Your task to perform on an android device: check storage Image 0: 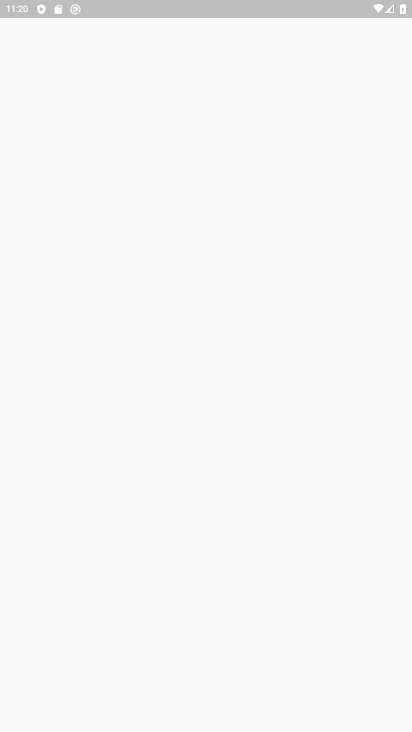
Step 0: press back button
Your task to perform on an android device: check storage Image 1: 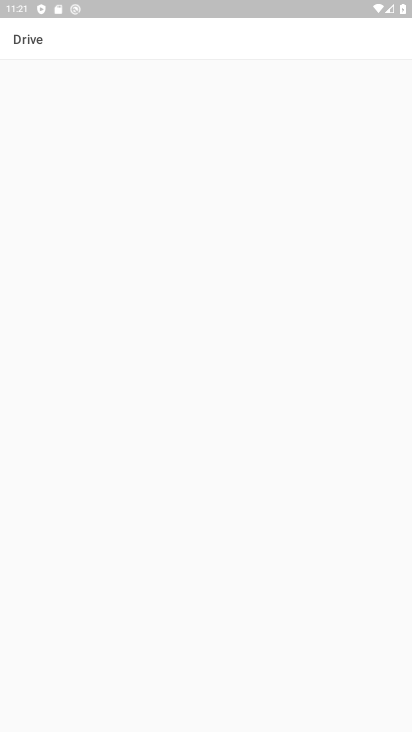
Step 1: press back button
Your task to perform on an android device: check storage Image 2: 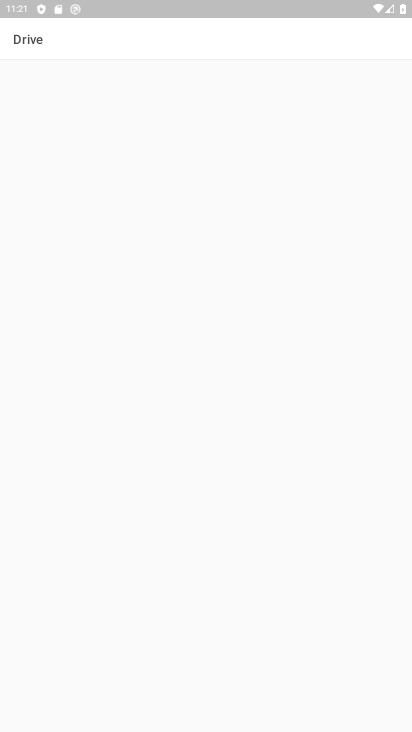
Step 2: press home button
Your task to perform on an android device: check storage Image 3: 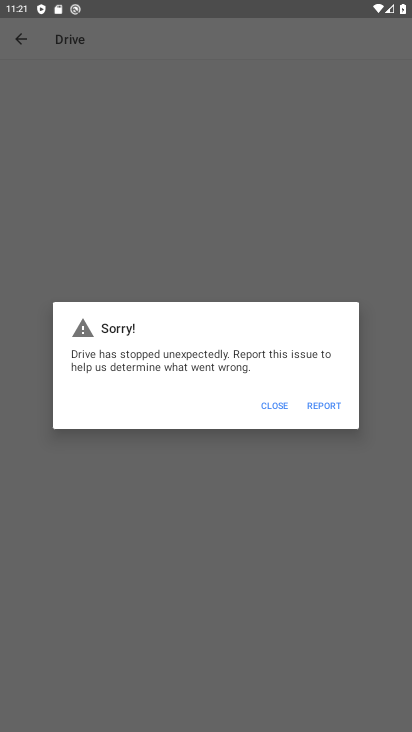
Step 3: press back button
Your task to perform on an android device: check storage Image 4: 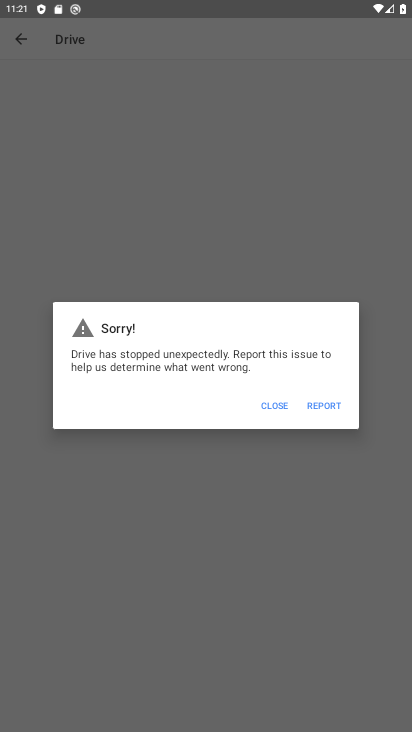
Step 4: press home button
Your task to perform on an android device: check storage Image 5: 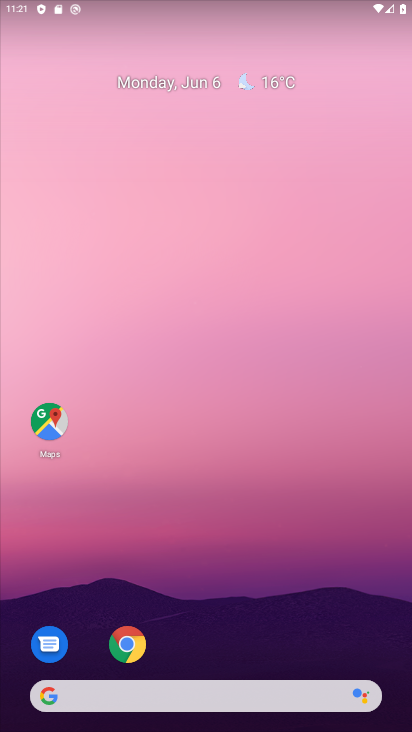
Step 5: press back button
Your task to perform on an android device: check storage Image 6: 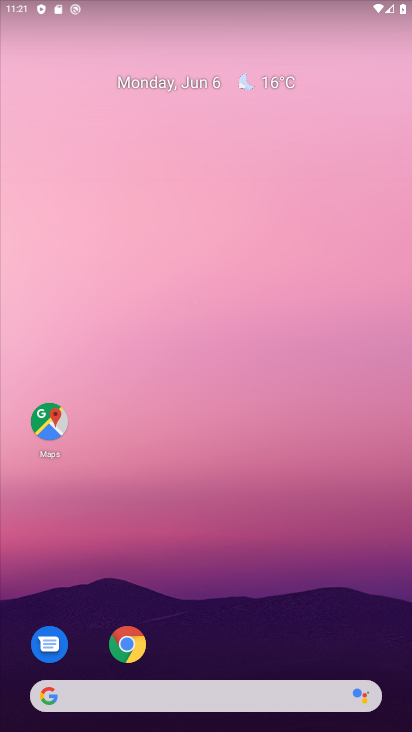
Step 6: drag from (299, 560) to (206, 3)
Your task to perform on an android device: check storage Image 7: 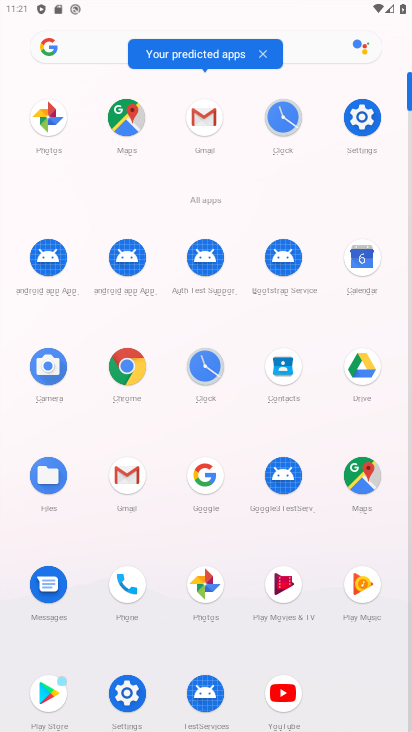
Step 7: click (129, 694)
Your task to perform on an android device: check storage Image 8: 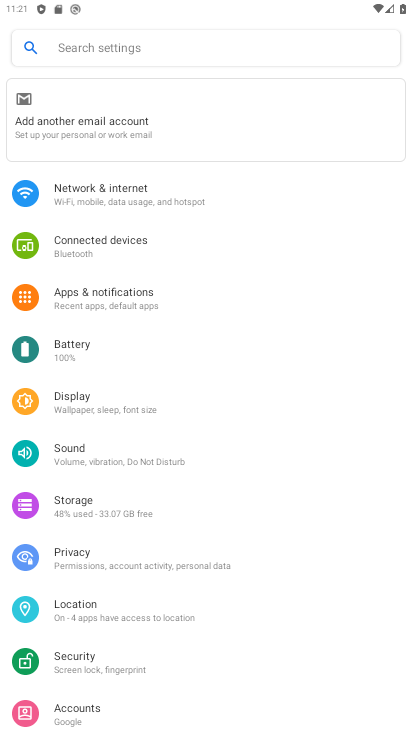
Step 8: drag from (232, 562) to (218, 231)
Your task to perform on an android device: check storage Image 9: 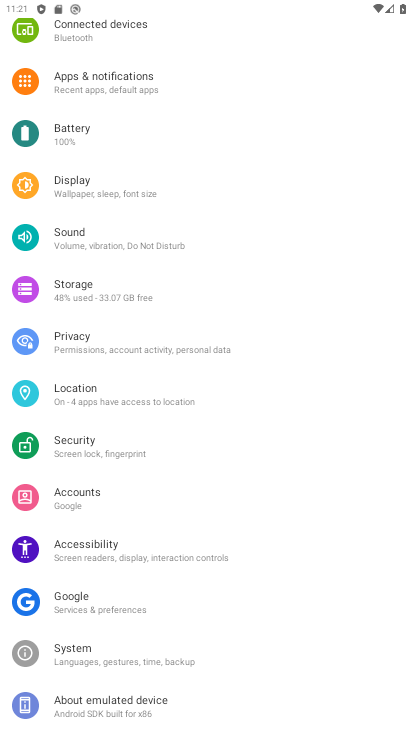
Step 9: drag from (244, 561) to (243, 245)
Your task to perform on an android device: check storage Image 10: 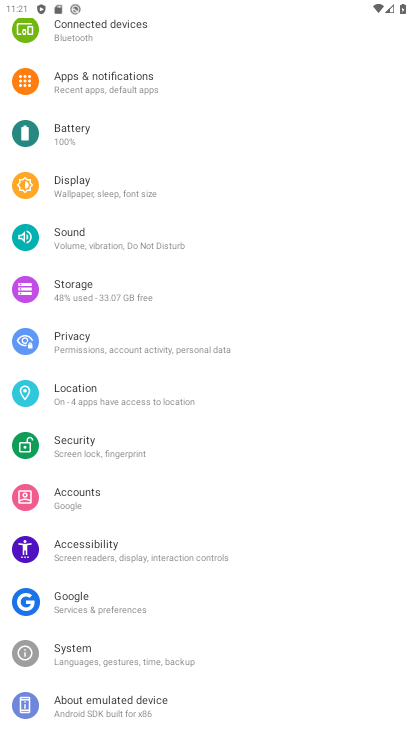
Step 10: click (96, 287)
Your task to perform on an android device: check storage Image 11: 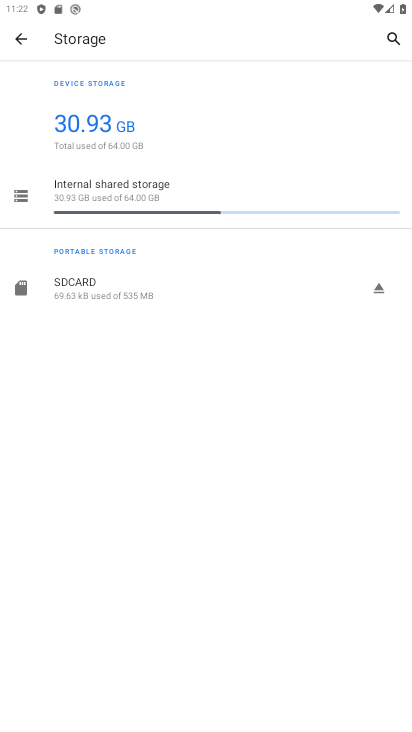
Step 11: task complete